Your task to perform on an android device: Go to Wikipedia Image 0: 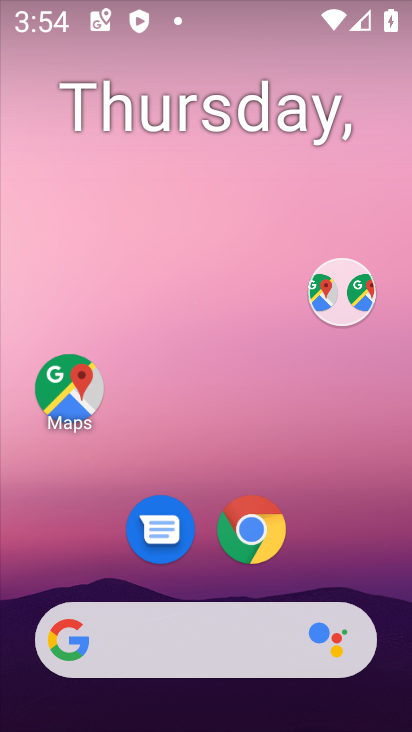
Step 0: click (234, 531)
Your task to perform on an android device: Go to Wikipedia Image 1: 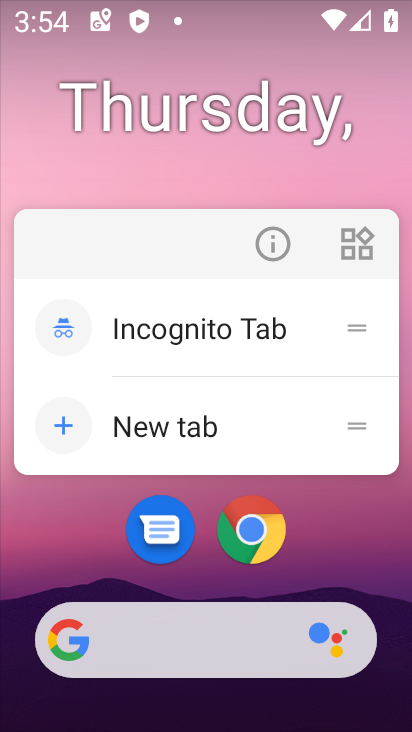
Step 1: click (234, 531)
Your task to perform on an android device: Go to Wikipedia Image 2: 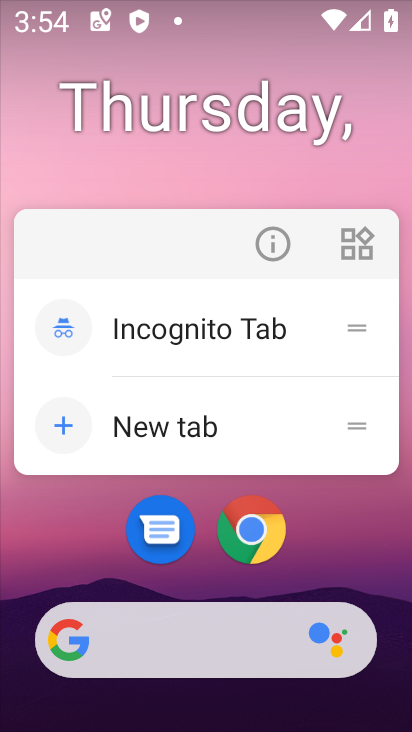
Step 2: click (234, 531)
Your task to perform on an android device: Go to Wikipedia Image 3: 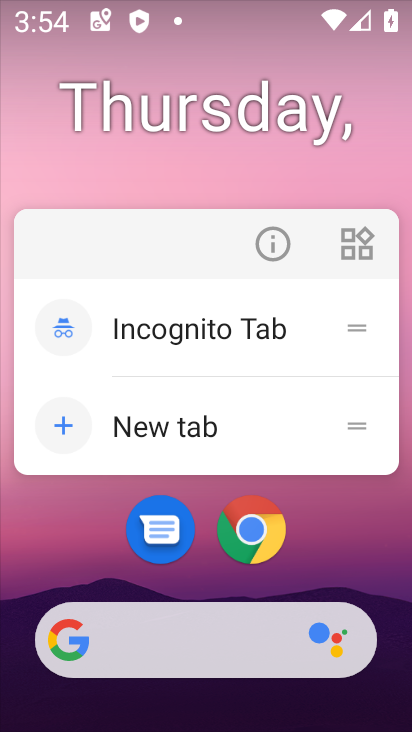
Step 3: click (234, 531)
Your task to perform on an android device: Go to Wikipedia Image 4: 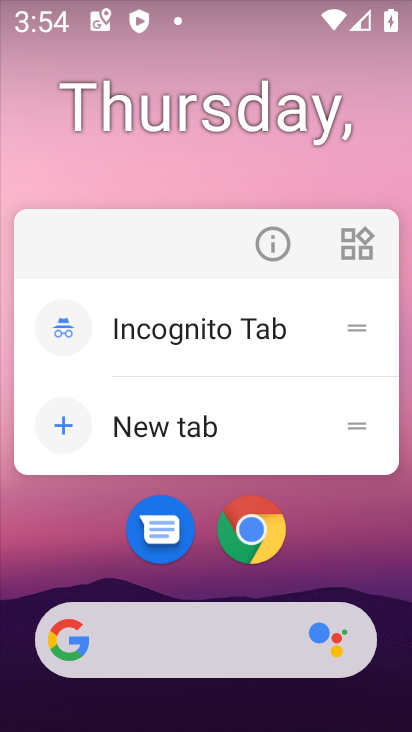
Step 4: click (234, 531)
Your task to perform on an android device: Go to Wikipedia Image 5: 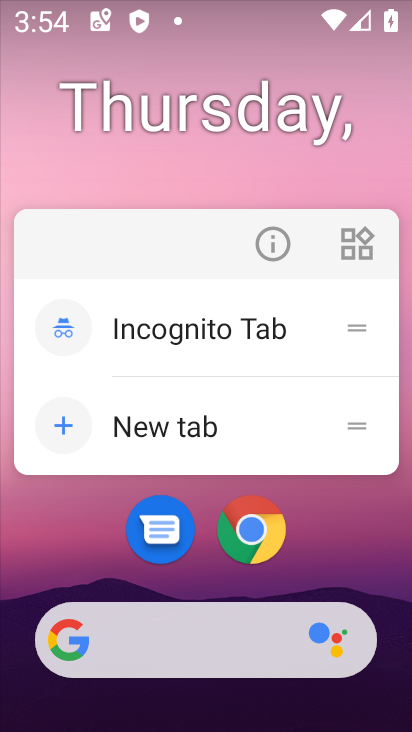
Step 5: click (243, 525)
Your task to perform on an android device: Go to Wikipedia Image 6: 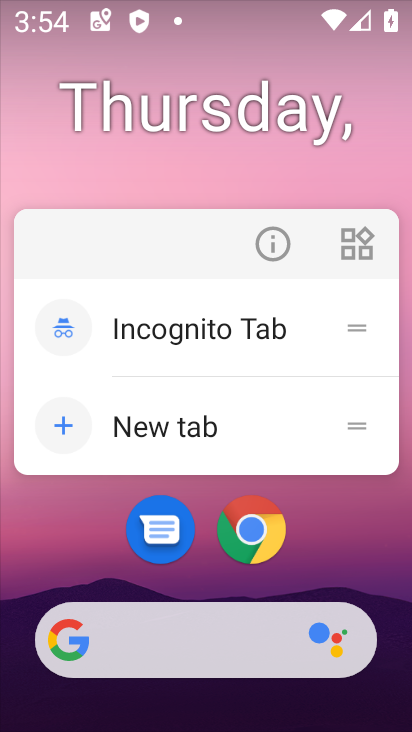
Step 6: click (243, 525)
Your task to perform on an android device: Go to Wikipedia Image 7: 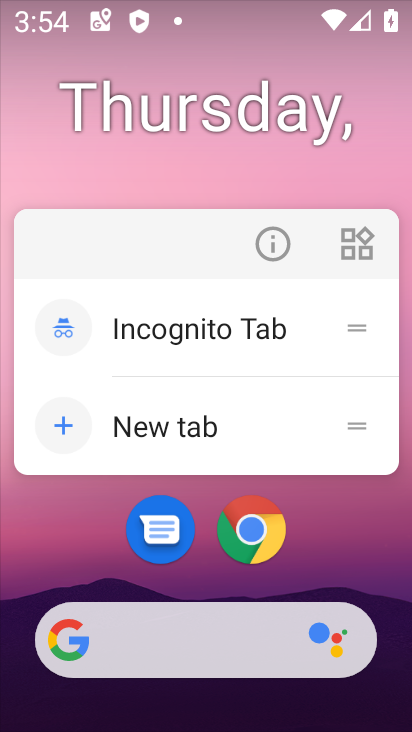
Step 7: click (243, 525)
Your task to perform on an android device: Go to Wikipedia Image 8: 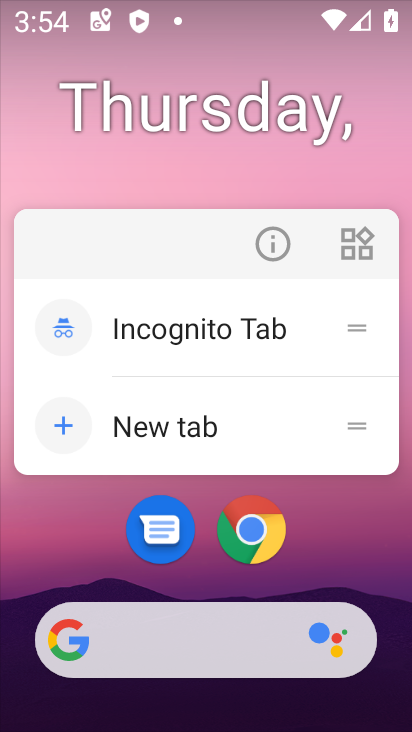
Step 8: click (243, 525)
Your task to perform on an android device: Go to Wikipedia Image 9: 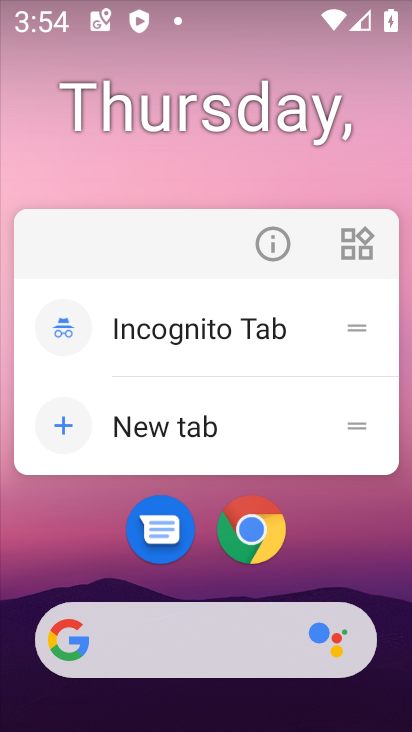
Step 9: click (243, 525)
Your task to perform on an android device: Go to Wikipedia Image 10: 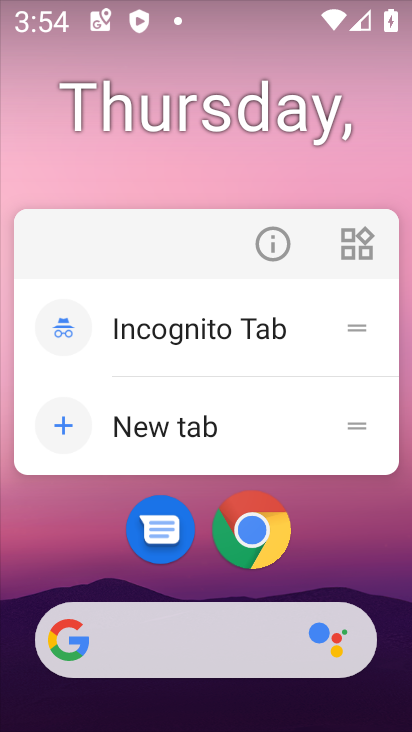
Step 10: click (243, 525)
Your task to perform on an android device: Go to Wikipedia Image 11: 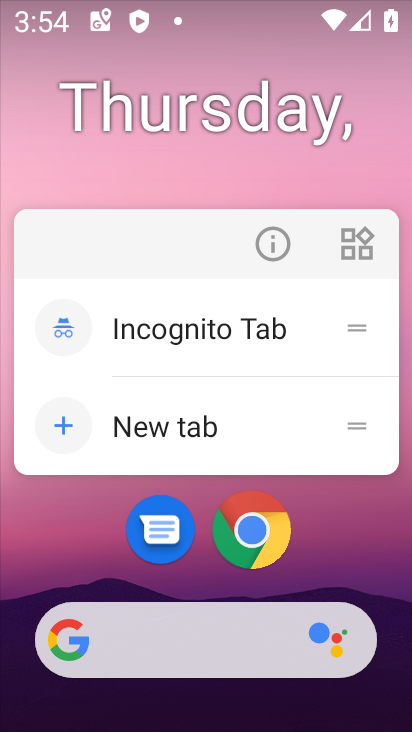
Step 11: click (243, 525)
Your task to perform on an android device: Go to Wikipedia Image 12: 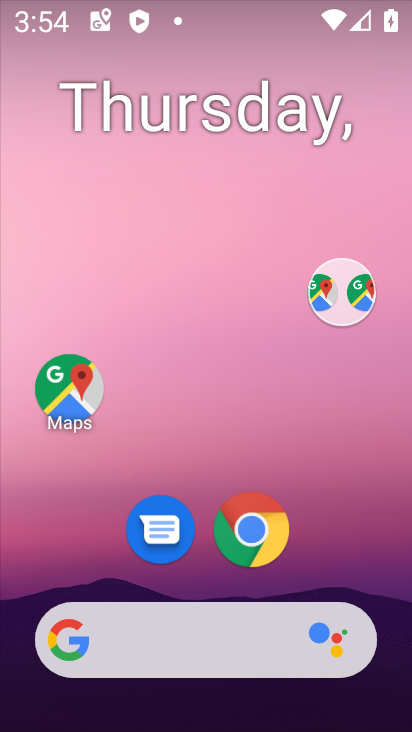
Step 12: click (243, 525)
Your task to perform on an android device: Go to Wikipedia Image 13: 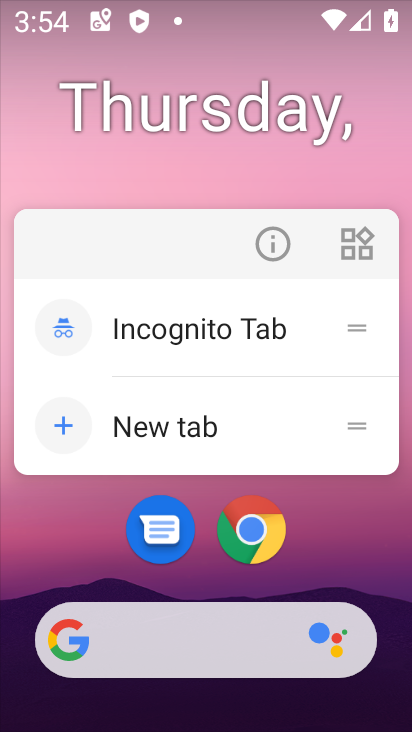
Step 13: click (243, 525)
Your task to perform on an android device: Go to Wikipedia Image 14: 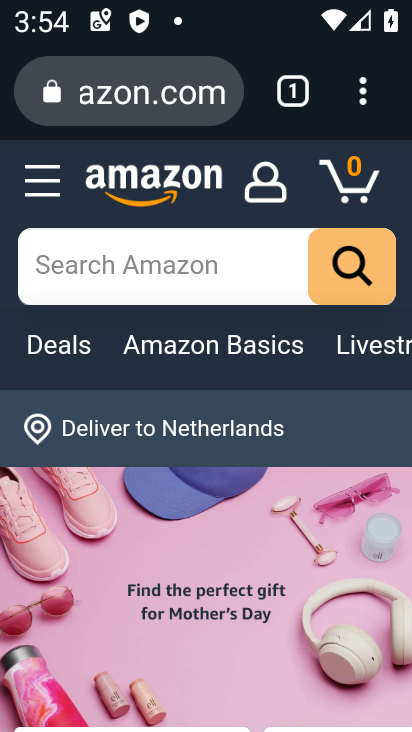
Step 14: click (366, 88)
Your task to perform on an android device: Go to Wikipedia Image 15: 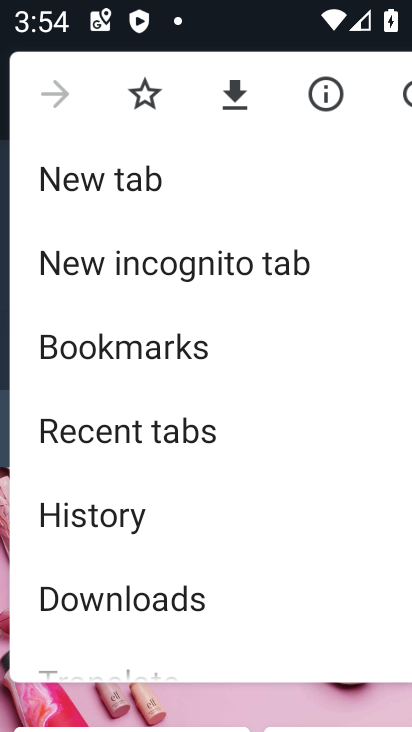
Step 15: click (132, 196)
Your task to perform on an android device: Go to Wikipedia Image 16: 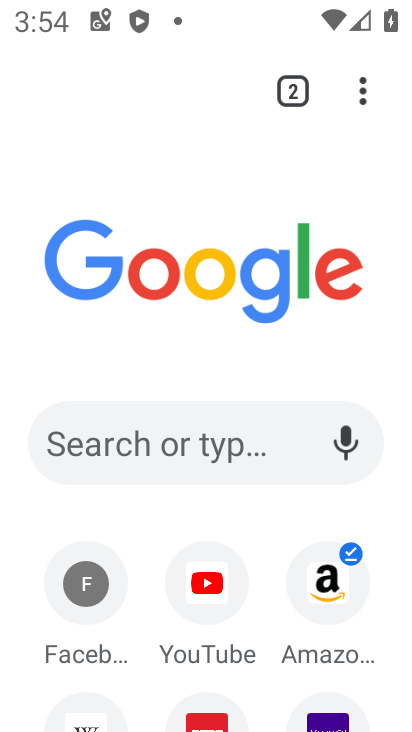
Step 16: click (81, 710)
Your task to perform on an android device: Go to Wikipedia Image 17: 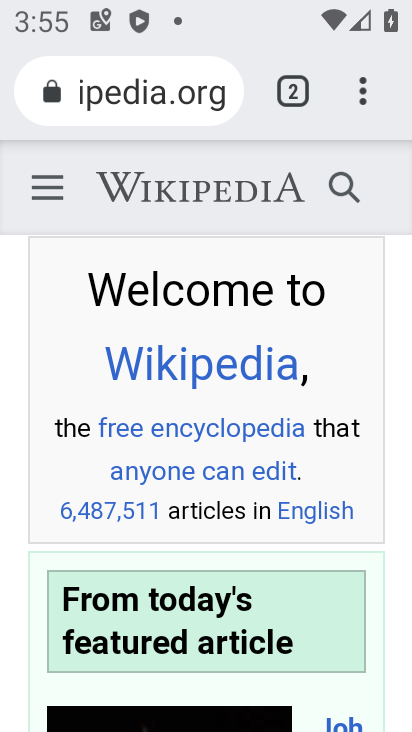
Step 17: task complete